Your task to perform on an android device: set an alarm Image 0: 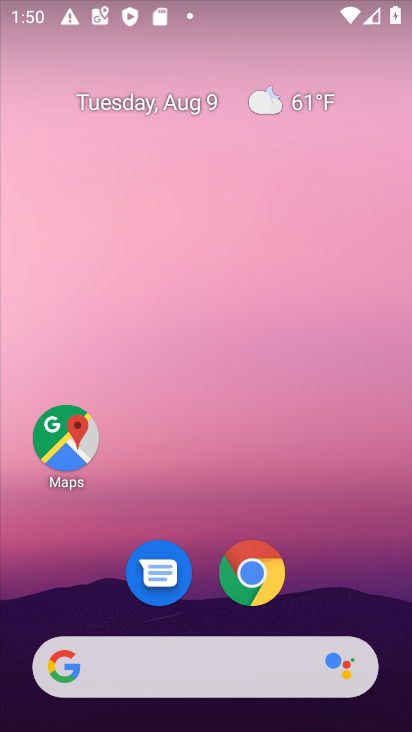
Step 0: drag from (61, 537) to (336, 92)
Your task to perform on an android device: set an alarm Image 1: 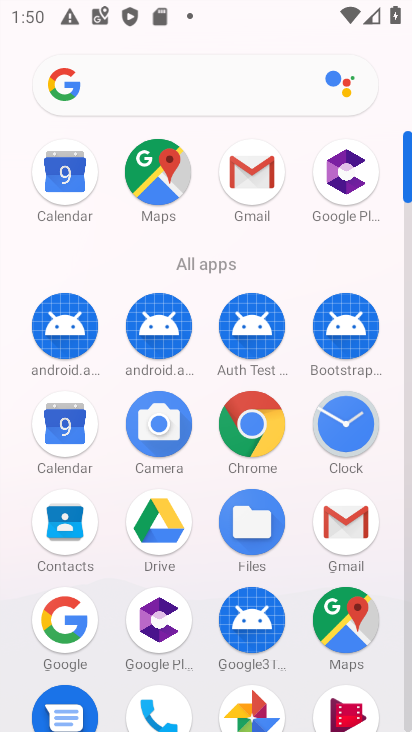
Step 1: click (338, 421)
Your task to perform on an android device: set an alarm Image 2: 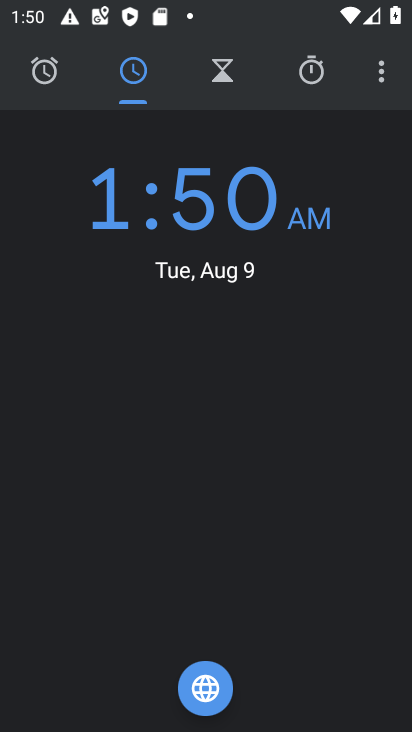
Step 2: click (25, 76)
Your task to perform on an android device: set an alarm Image 3: 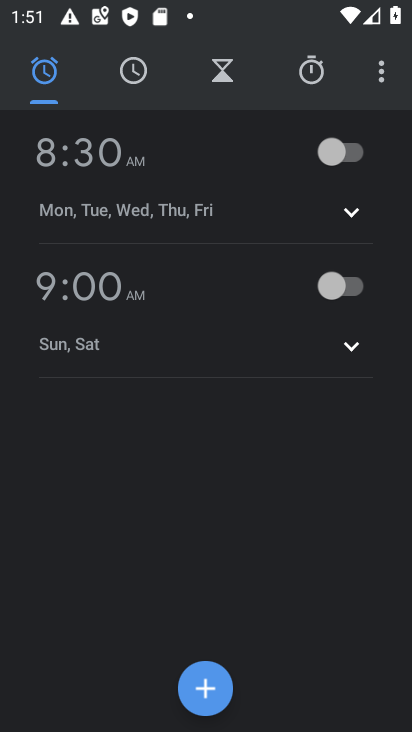
Step 3: click (212, 693)
Your task to perform on an android device: set an alarm Image 4: 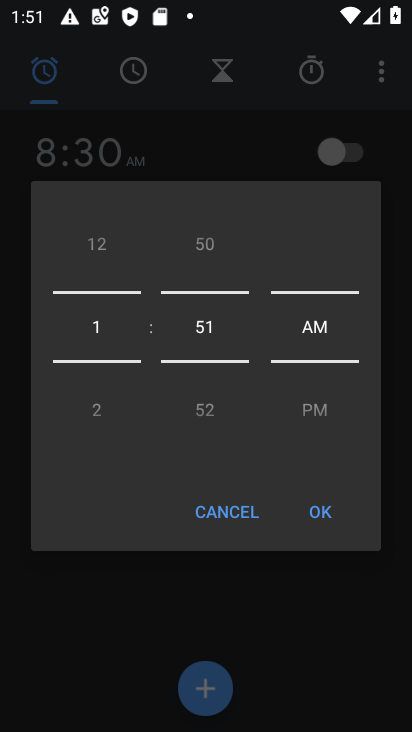
Step 4: click (96, 412)
Your task to perform on an android device: set an alarm Image 5: 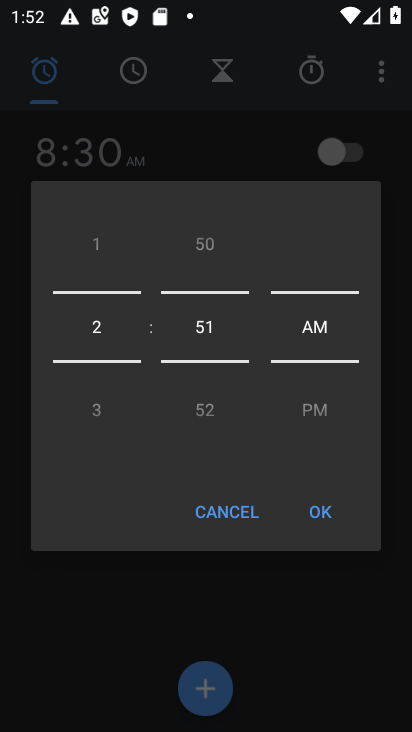
Step 5: click (334, 510)
Your task to perform on an android device: set an alarm Image 6: 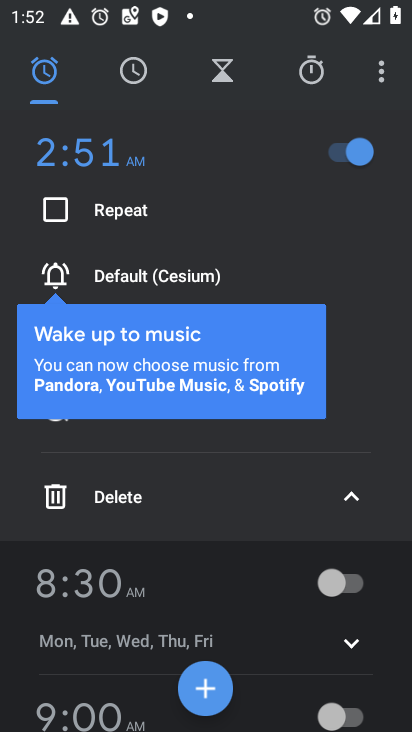
Step 6: task complete